Your task to perform on an android device: make emails show in primary in the gmail app Image 0: 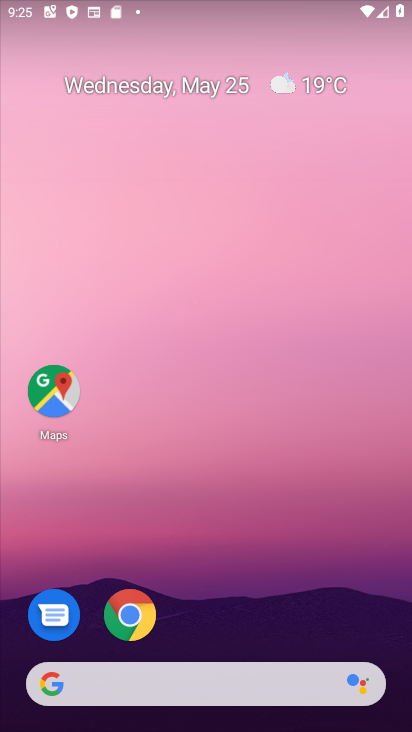
Step 0: drag from (291, 626) to (206, 130)
Your task to perform on an android device: make emails show in primary in the gmail app Image 1: 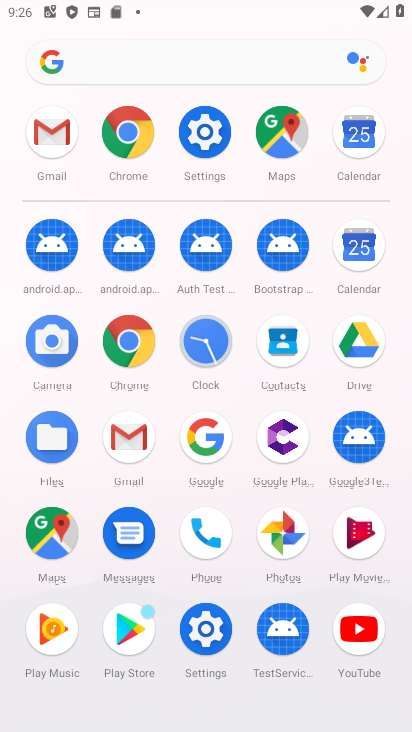
Step 1: click (122, 430)
Your task to perform on an android device: make emails show in primary in the gmail app Image 2: 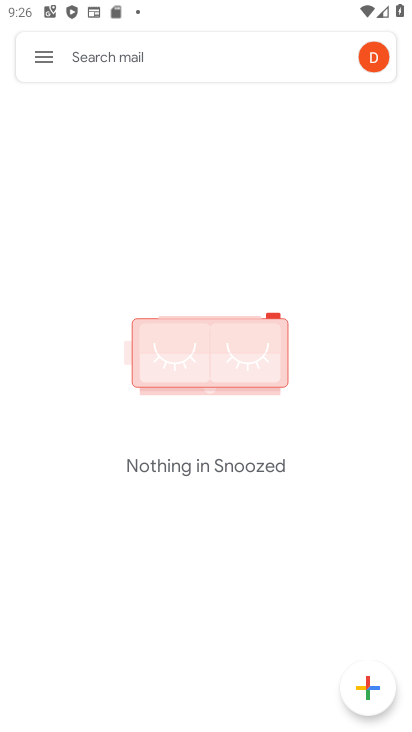
Step 2: click (40, 69)
Your task to perform on an android device: make emails show in primary in the gmail app Image 3: 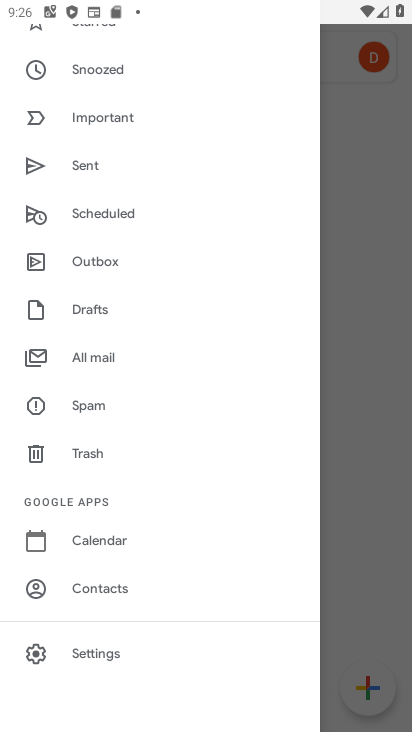
Step 3: click (111, 655)
Your task to perform on an android device: make emails show in primary in the gmail app Image 4: 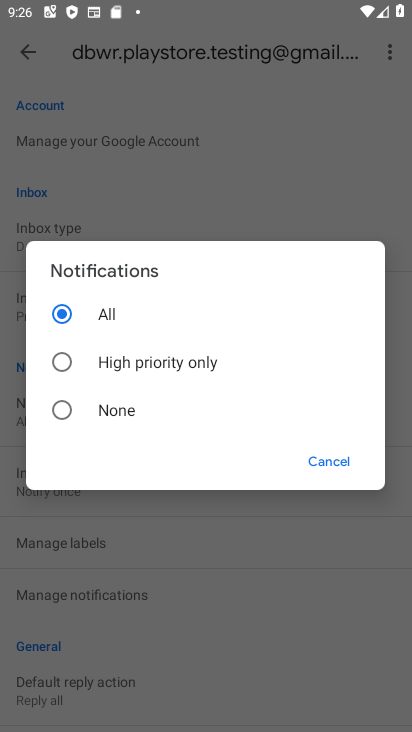
Step 4: click (313, 454)
Your task to perform on an android device: make emails show in primary in the gmail app Image 5: 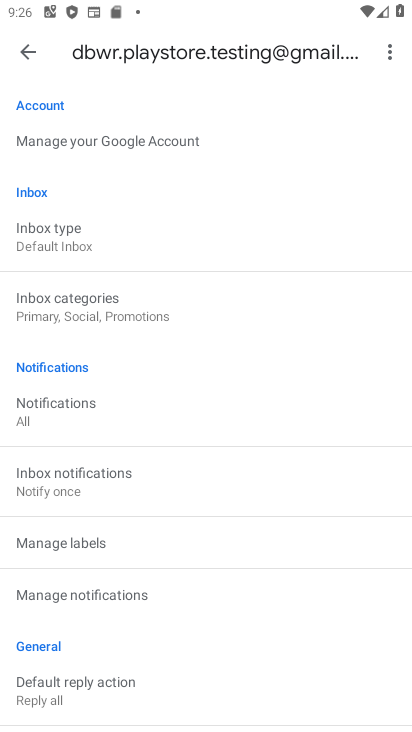
Step 5: click (91, 293)
Your task to perform on an android device: make emails show in primary in the gmail app Image 6: 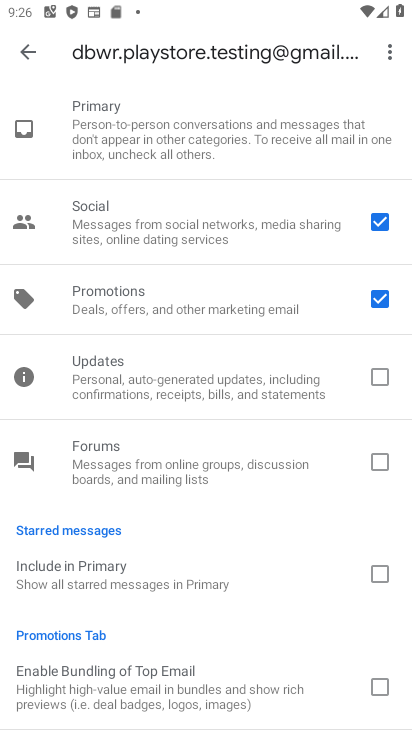
Step 6: click (171, 150)
Your task to perform on an android device: make emails show in primary in the gmail app Image 7: 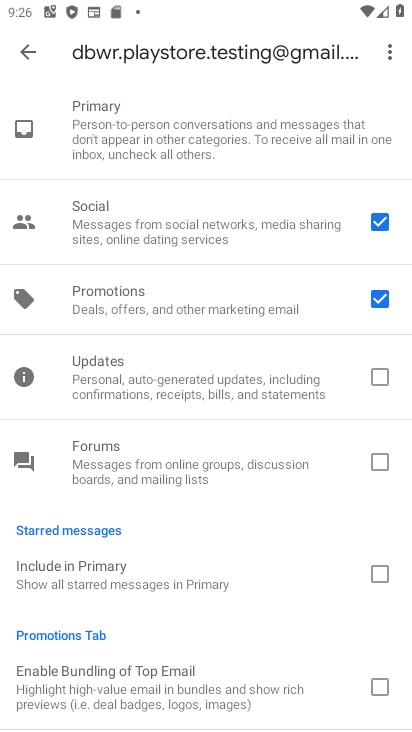
Step 7: task complete